Your task to perform on an android device: open wifi settings Image 0: 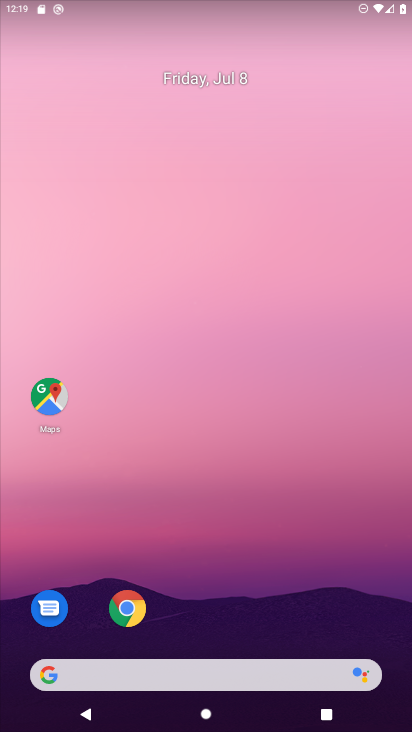
Step 0: drag from (241, 728) to (184, 115)
Your task to perform on an android device: open wifi settings Image 1: 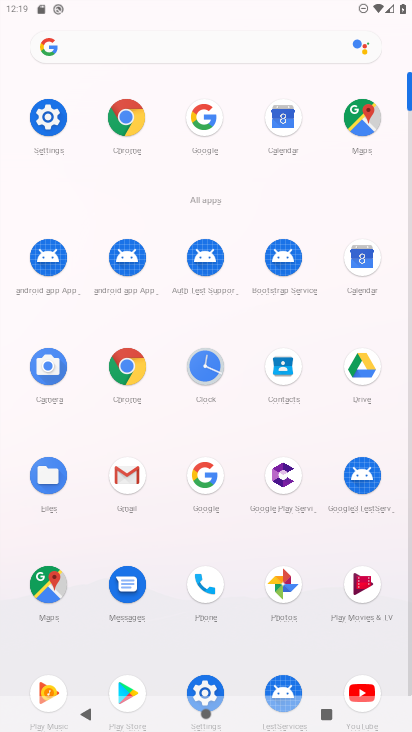
Step 1: click (44, 112)
Your task to perform on an android device: open wifi settings Image 2: 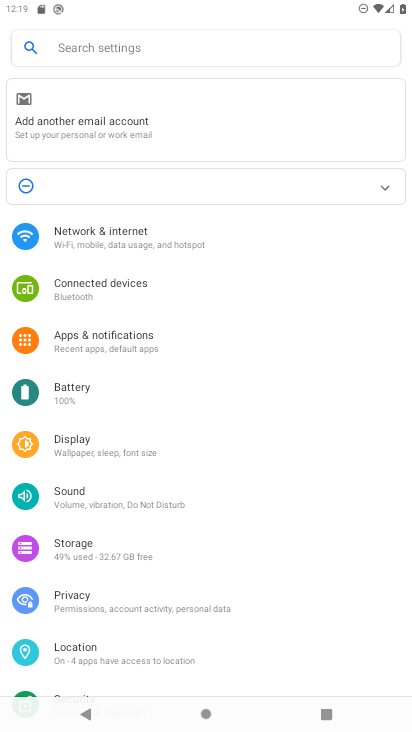
Step 2: click (79, 227)
Your task to perform on an android device: open wifi settings Image 3: 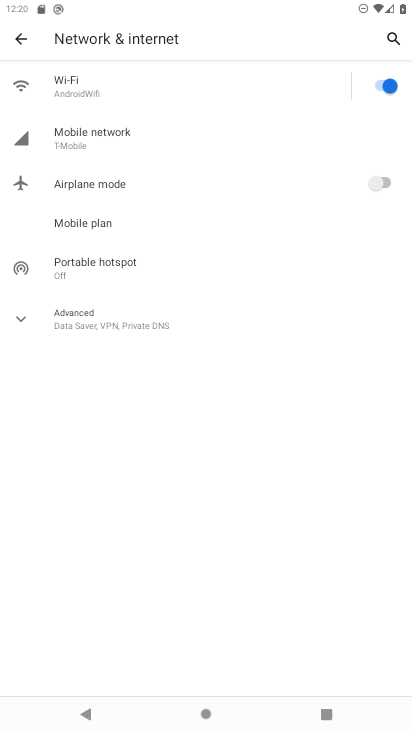
Step 3: click (70, 85)
Your task to perform on an android device: open wifi settings Image 4: 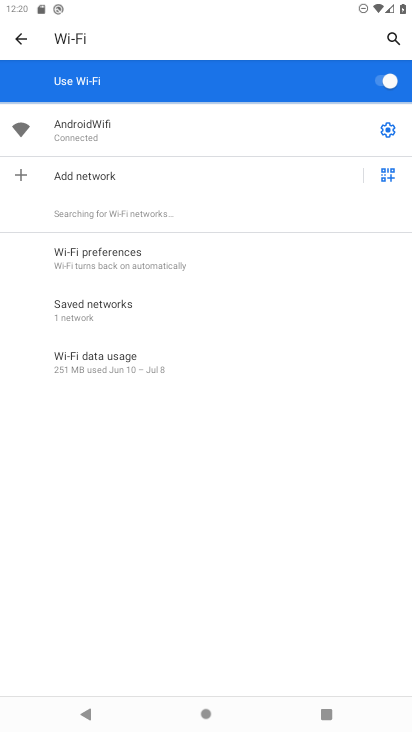
Step 4: task complete